Your task to perform on an android device: Search for sushi restaurants on Maps Image 0: 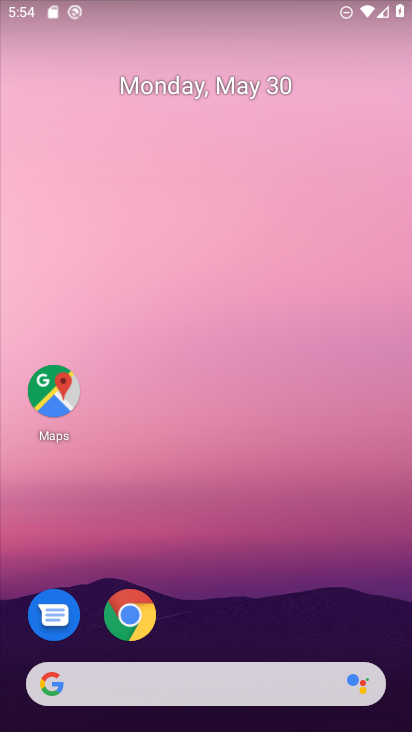
Step 0: click (51, 388)
Your task to perform on an android device: Search for sushi restaurants on Maps Image 1: 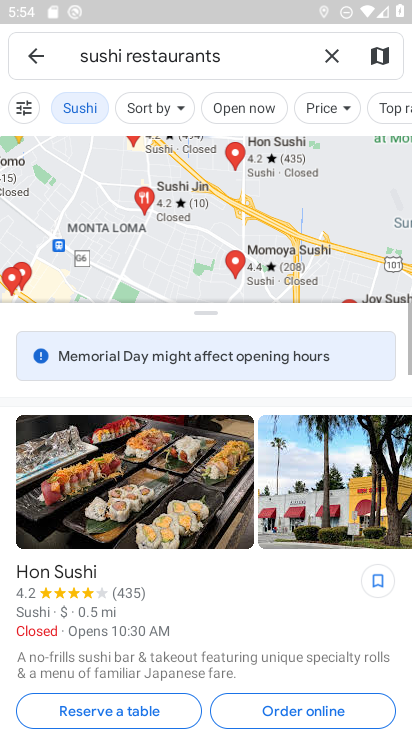
Step 1: task complete